Your task to perform on an android device: Open sound settings Image 0: 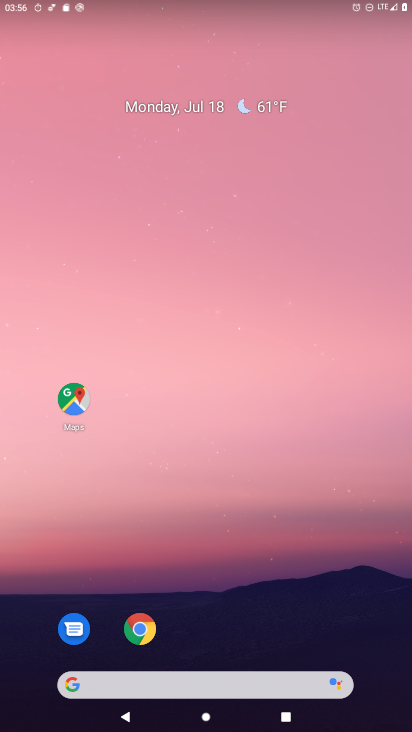
Step 0: drag from (199, 682) to (237, 140)
Your task to perform on an android device: Open sound settings Image 1: 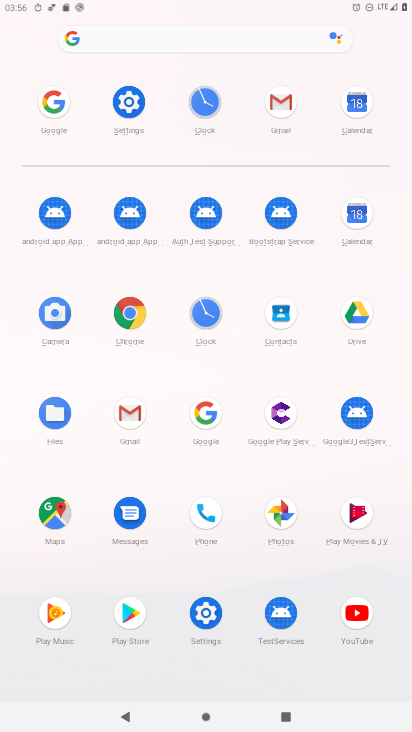
Step 1: click (128, 99)
Your task to perform on an android device: Open sound settings Image 2: 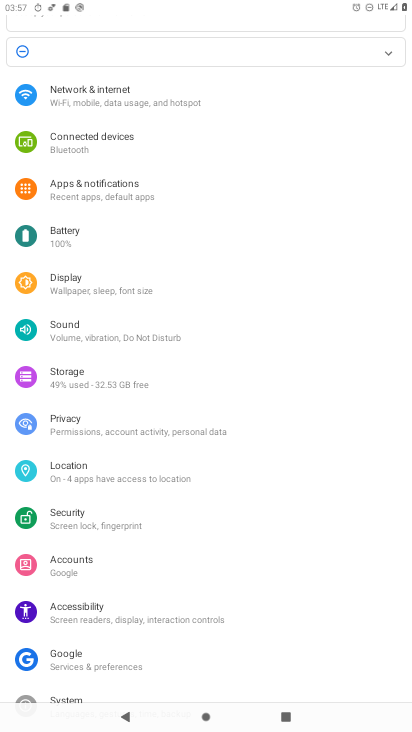
Step 2: click (75, 329)
Your task to perform on an android device: Open sound settings Image 3: 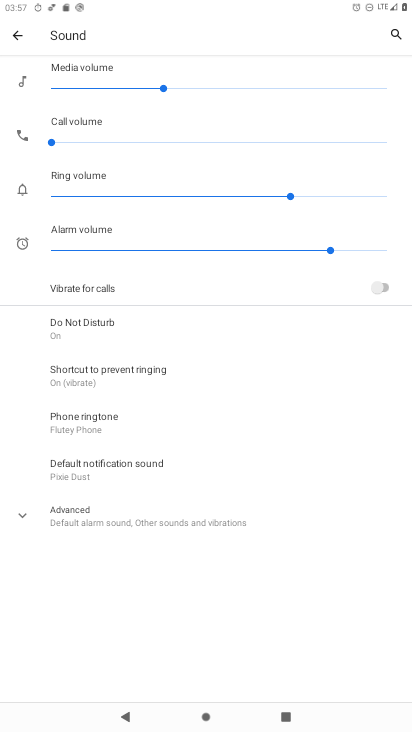
Step 3: task complete